Your task to perform on an android device: change the upload size in google photos Image 0: 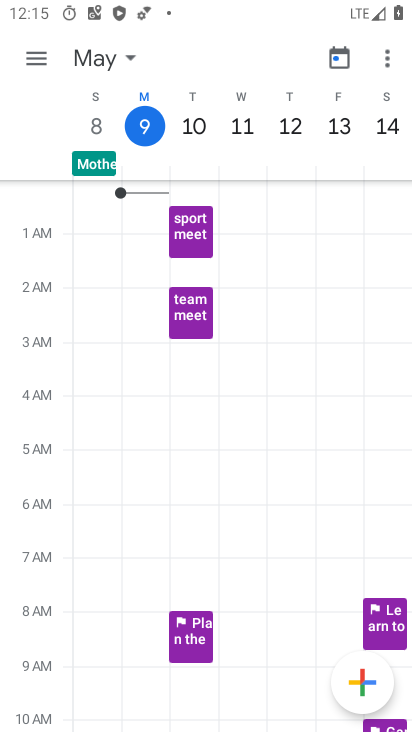
Step 0: press home button
Your task to perform on an android device: change the upload size in google photos Image 1: 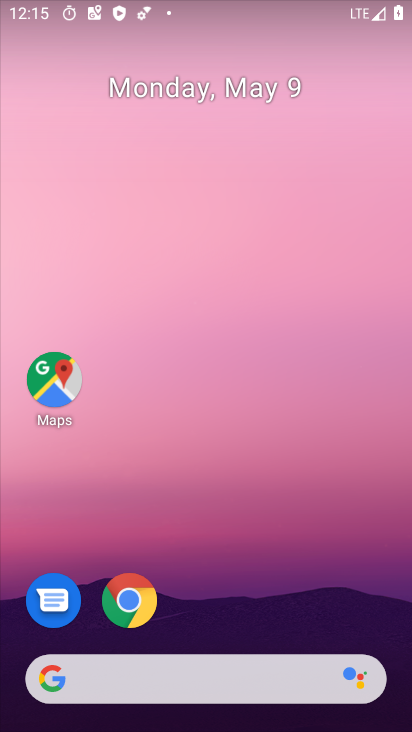
Step 1: drag from (257, 583) to (299, 196)
Your task to perform on an android device: change the upload size in google photos Image 2: 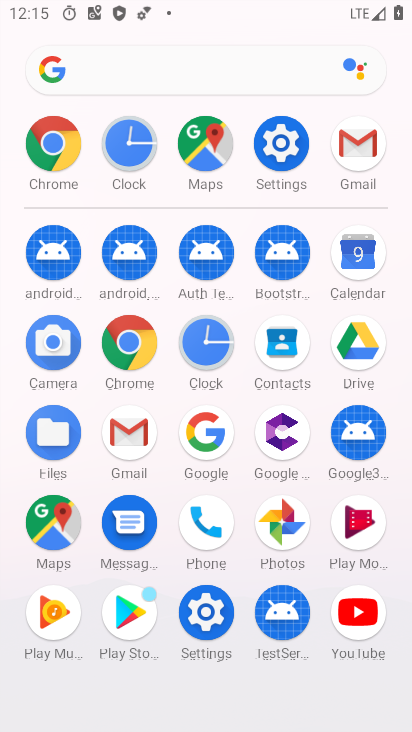
Step 2: click (271, 519)
Your task to perform on an android device: change the upload size in google photos Image 3: 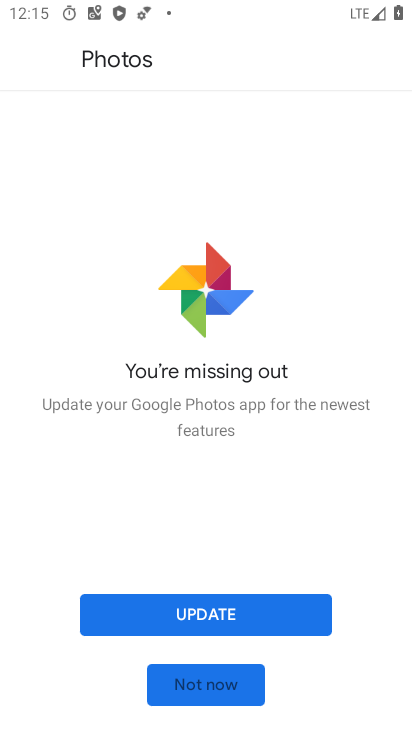
Step 3: click (238, 617)
Your task to perform on an android device: change the upload size in google photos Image 4: 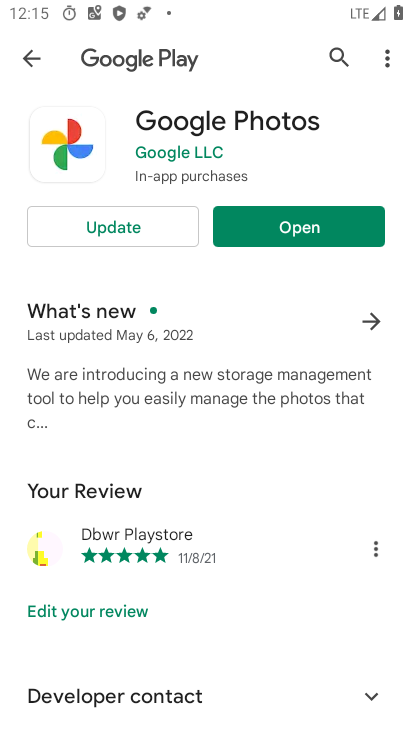
Step 4: click (145, 220)
Your task to perform on an android device: change the upload size in google photos Image 5: 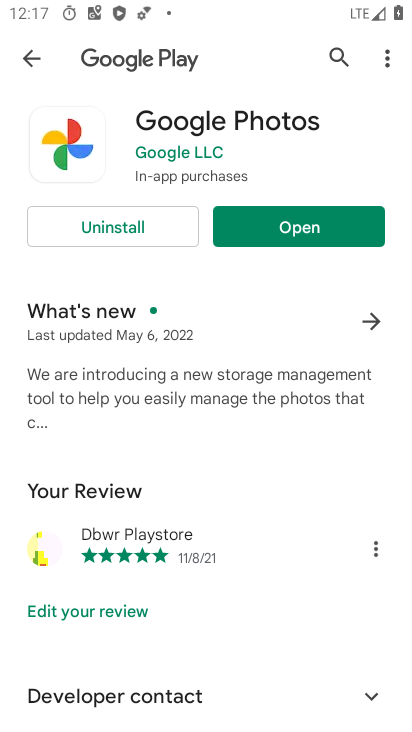
Step 5: click (306, 229)
Your task to perform on an android device: change the upload size in google photos Image 6: 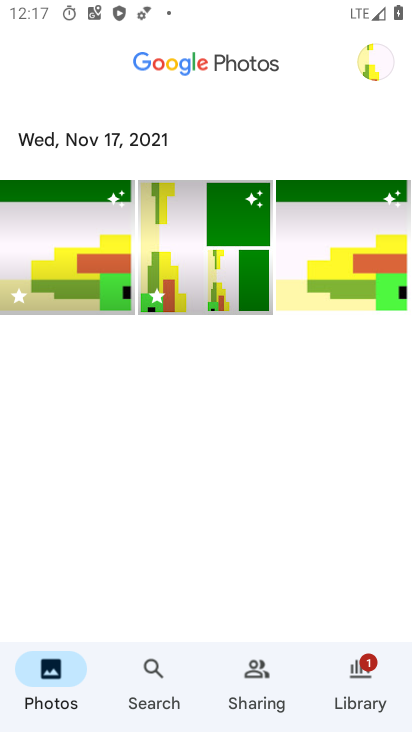
Step 6: click (362, 63)
Your task to perform on an android device: change the upload size in google photos Image 7: 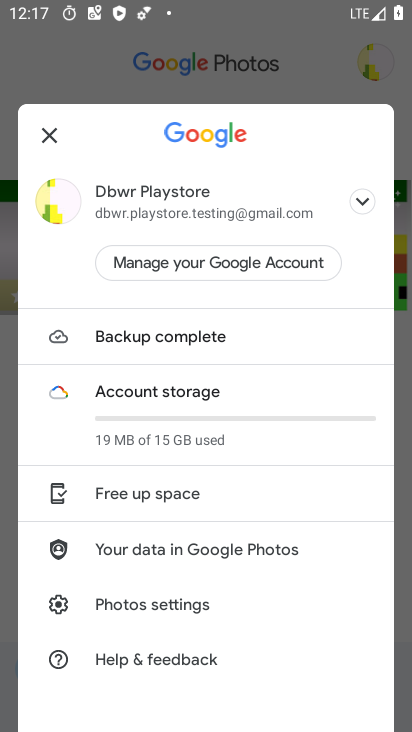
Step 7: click (157, 617)
Your task to perform on an android device: change the upload size in google photos Image 8: 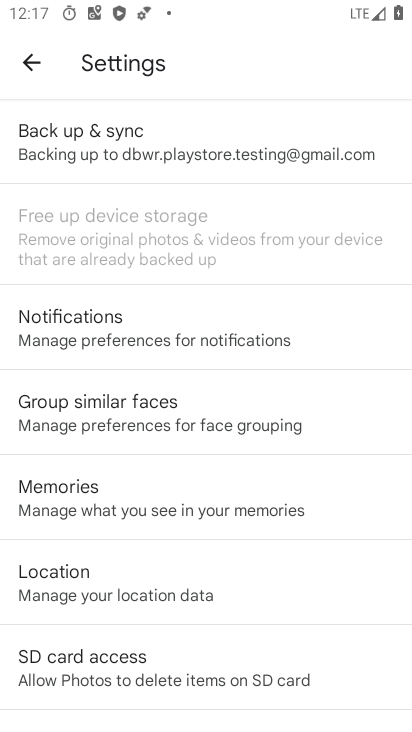
Step 8: drag from (102, 512) to (161, 558)
Your task to perform on an android device: change the upload size in google photos Image 9: 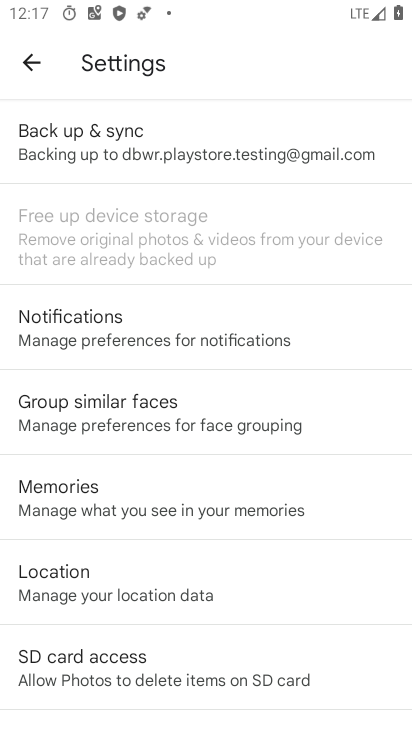
Step 9: click (90, 131)
Your task to perform on an android device: change the upload size in google photos Image 10: 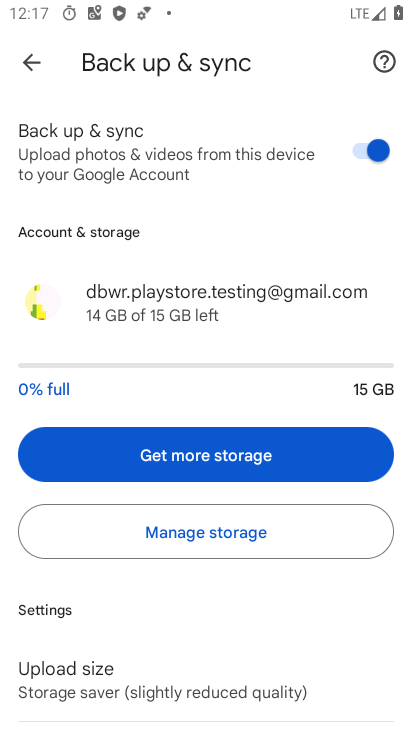
Step 10: drag from (119, 652) to (115, 387)
Your task to perform on an android device: change the upload size in google photos Image 11: 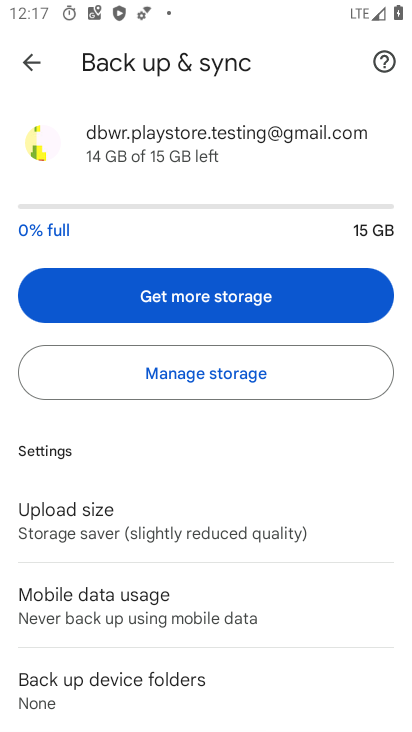
Step 11: click (151, 533)
Your task to perform on an android device: change the upload size in google photos Image 12: 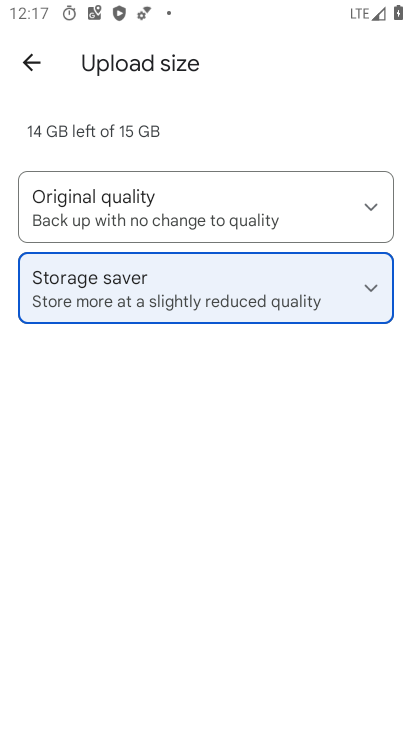
Step 12: click (128, 226)
Your task to perform on an android device: change the upload size in google photos Image 13: 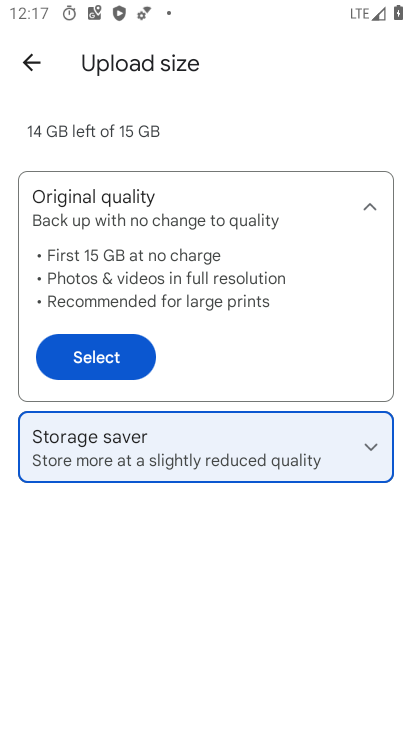
Step 13: click (93, 353)
Your task to perform on an android device: change the upload size in google photos Image 14: 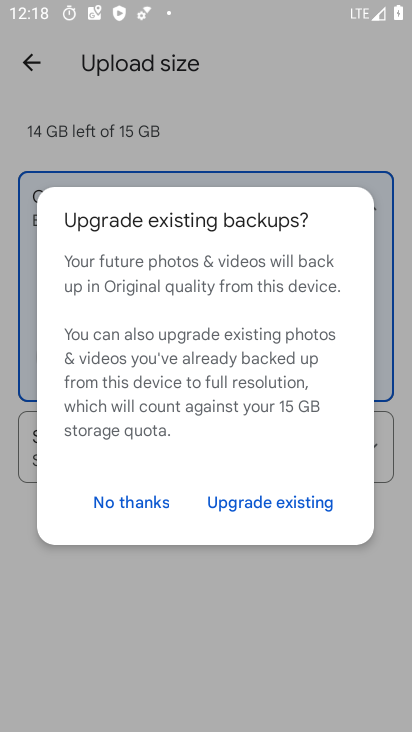
Step 14: click (119, 496)
Your task to perform on an android device: change the upload size in google photos Image 15: 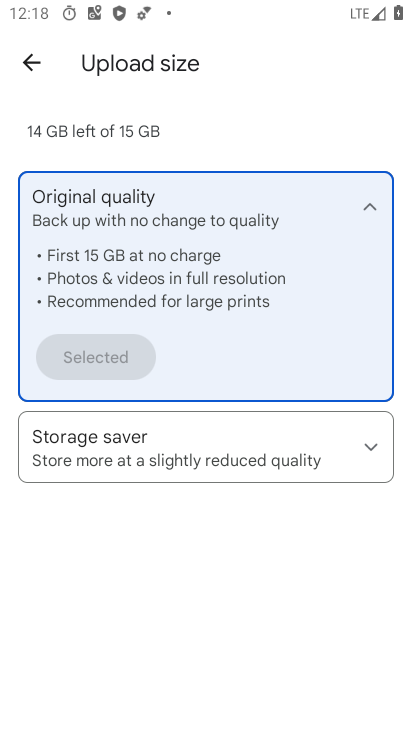
Step 15: task complete